Your task to perform on an android device: Search for dell alienware on bestbuy.com, select the first entry, and add it to the cart. Image 0: 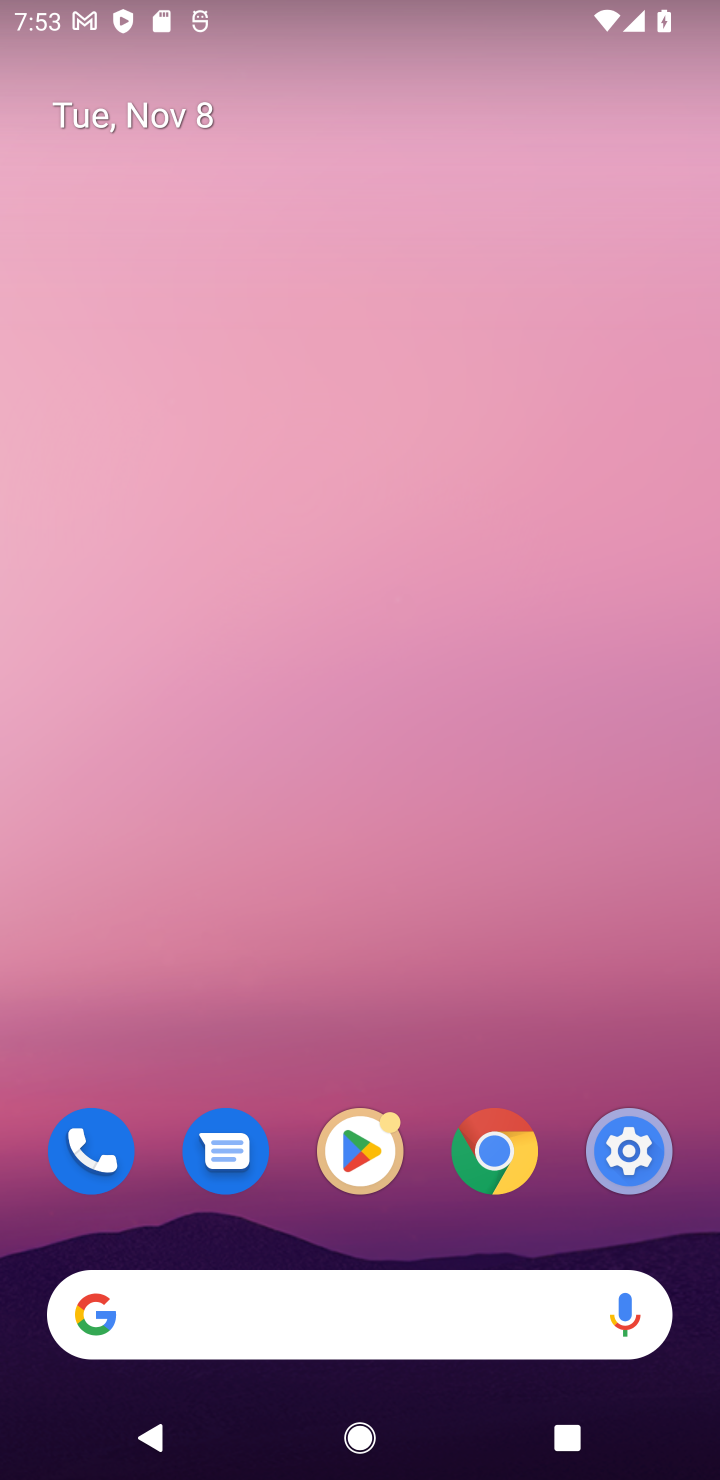
Step 0: click (269, 1302)
Your task to perform on an android device: Search for dell alienware on bestbuy.com, select the first entry, and add it to the cart. Image 1: 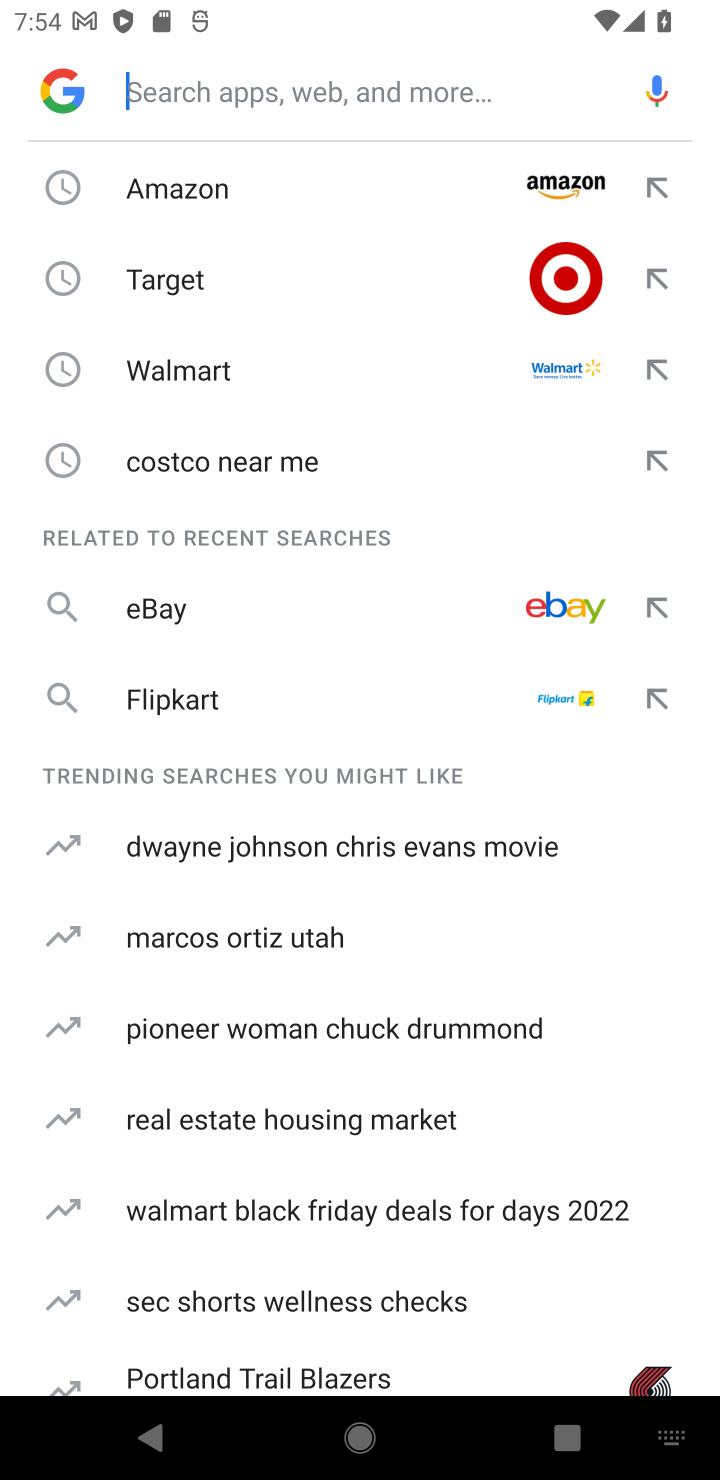
Step 1: type "bestbuy"
Your task to perform on an android device: Search for dell alienware on bestbuy.com, select the first entry, and add it to the cart. Image 2: 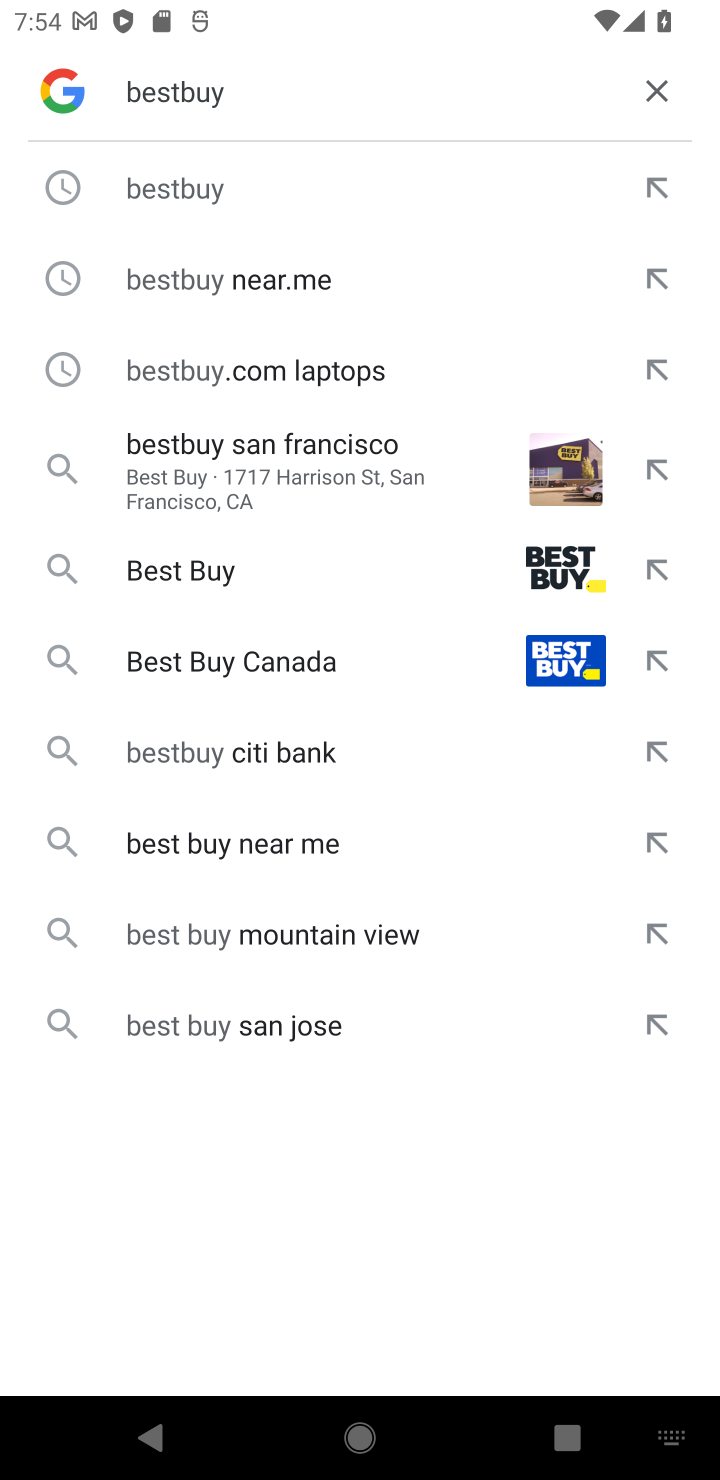
Step 2: click (439, 584)
Your task to perform on an android device: Search for dell alienware on bestbuy.com, select the first entry, and add it to the cart. Image 3: 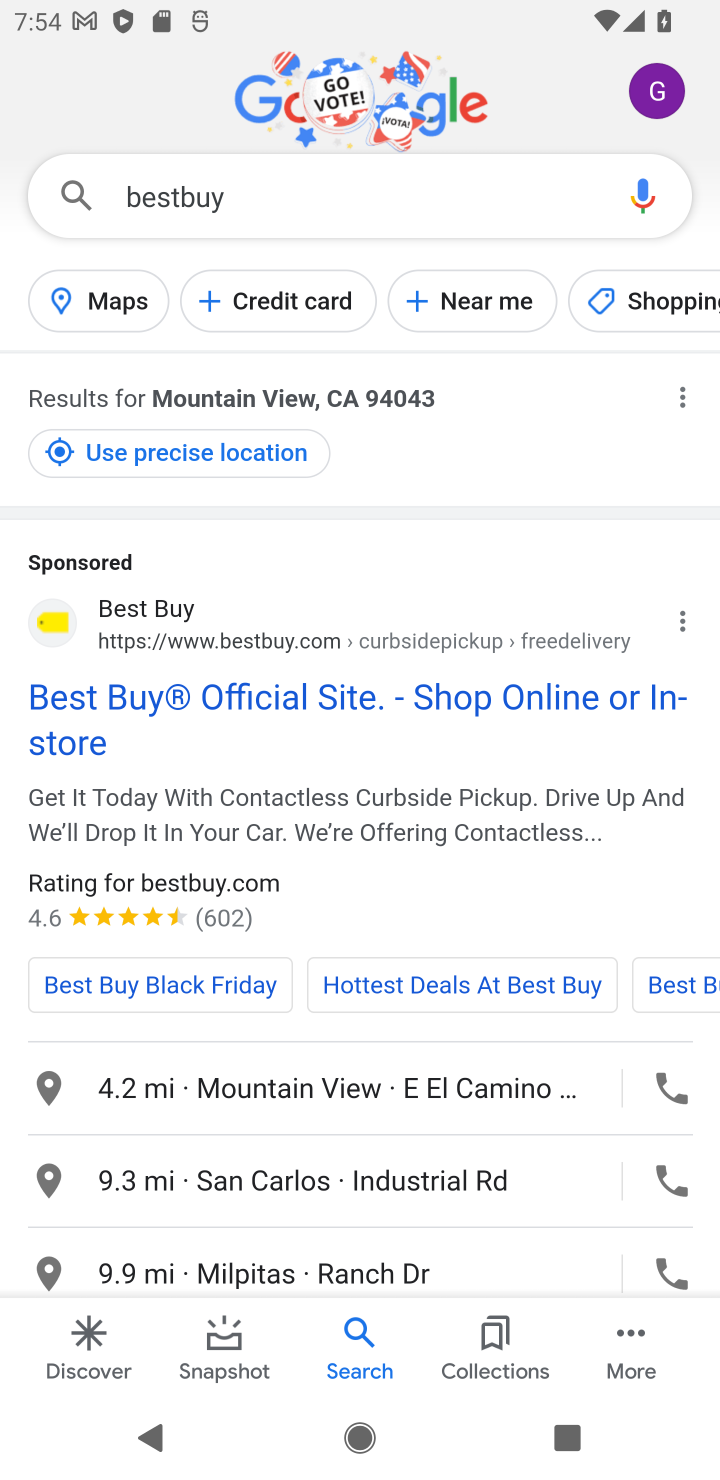
Step 3: click (428, 701)
Your task to perform on an android device: Search for dell alienware on bestbuy.com, select the first entry, and add it to the cart. Image 4: 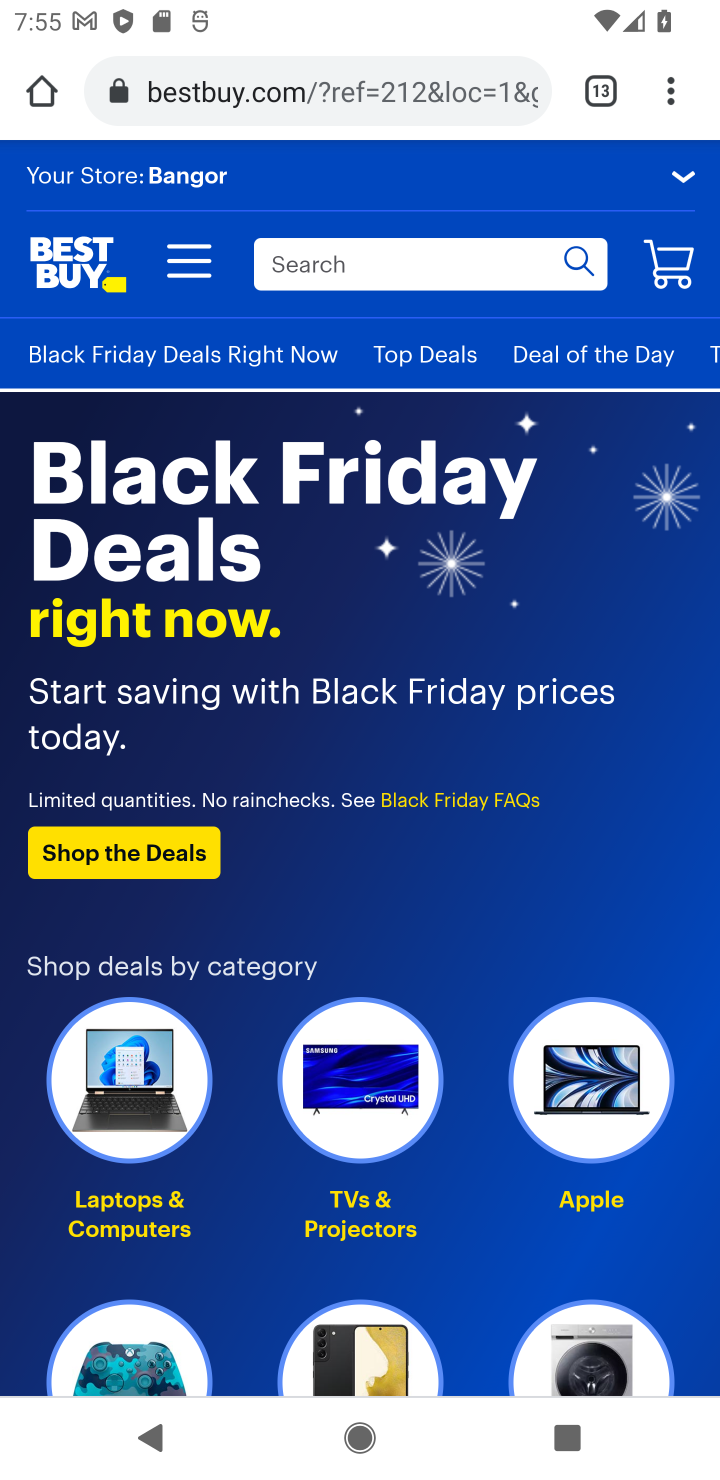
Step 4: click (292, 254)
Your task to perform on an android device: Search for dell alienware on bestbuy.com, select the first entry, and add it to the cart. Image 5: 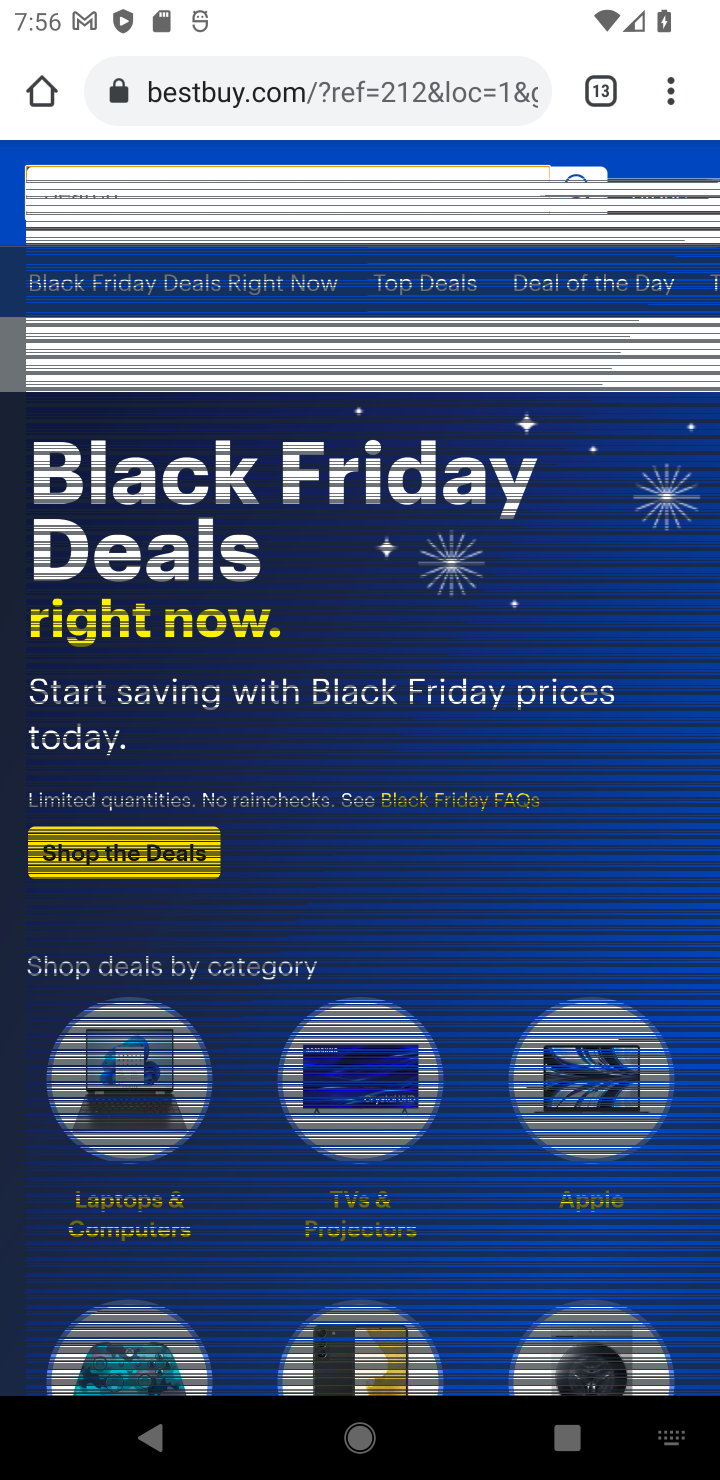
Step 5: task complete